Your task to perform on an android device: set the timer Image 0: 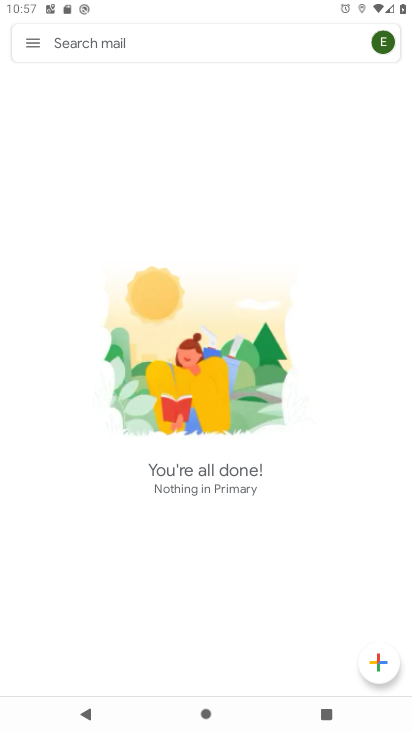
Step 0: press home button
Your task to perform on an android device: set the timer Image 1: 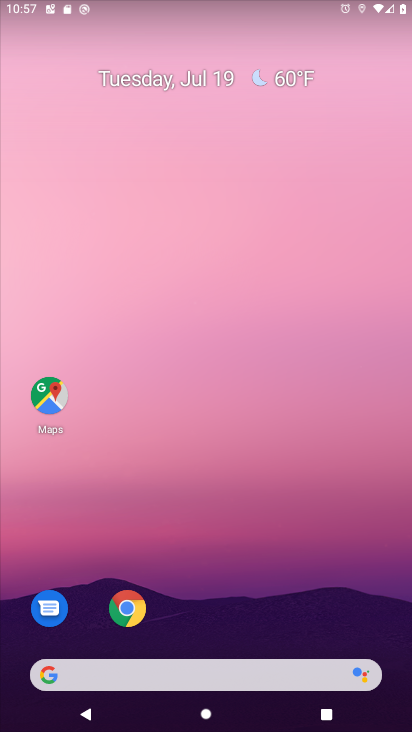
Step 1: drag from (217, 646) to (200, 93)
Your task to perform on an android device: set the timer Image 2: 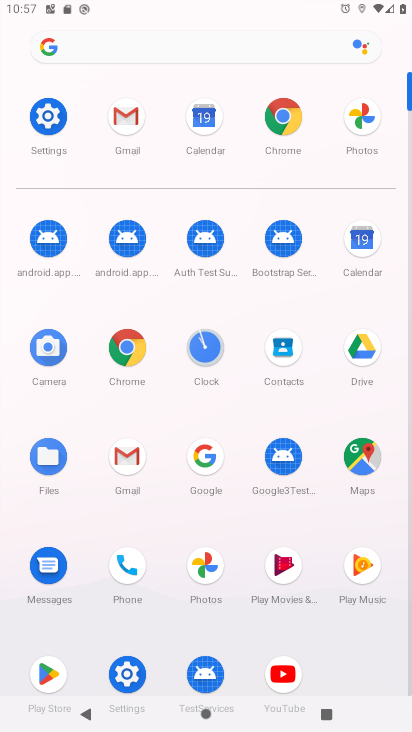
Step 2: click (196, 356)
Your task to perform on an android device: set the timer Image 3: 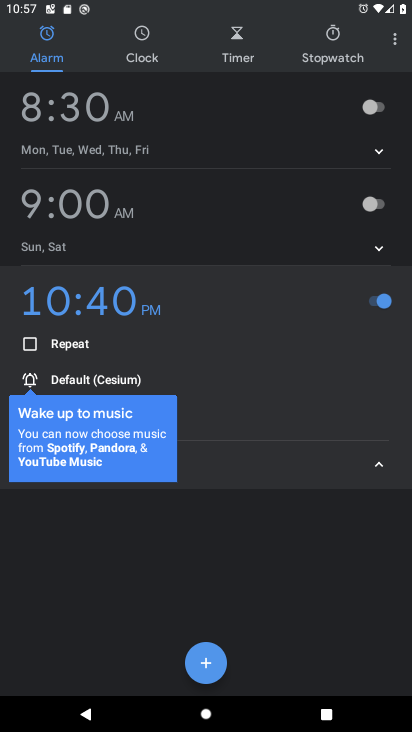
Step 3: click (209, 663)
Your task to perform on an android device: set the timer Image 4: 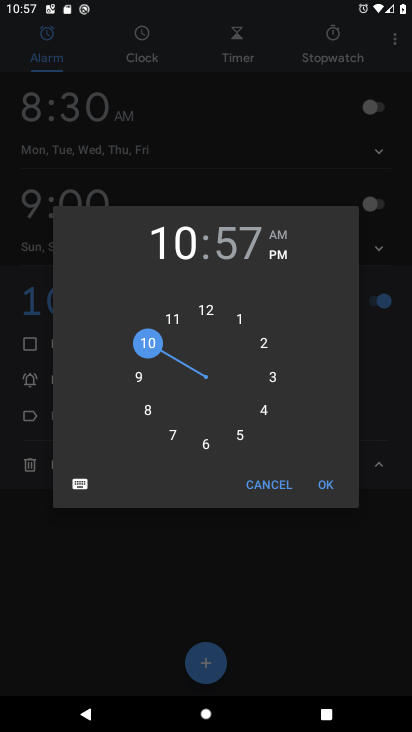
Step 4: click (330, 482)
Your task to perform on an android device: set the timer Image 5: 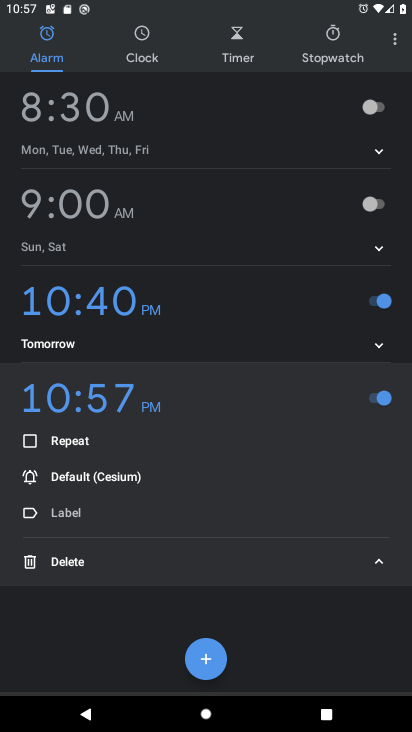
Step 5: task complete